Your task to perform on an android device: Play the last video I watched on Youtube Image 0: 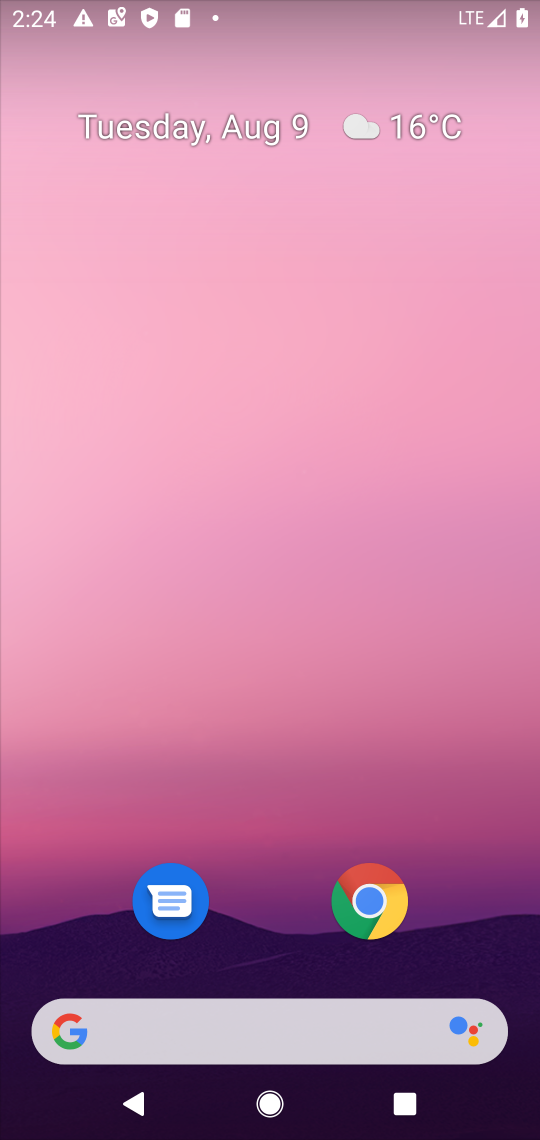
Step 0: drag from (516, 954) to (453, 149)
Your task to perform on an android device: Play the last video I watched on Youtube Image 1: 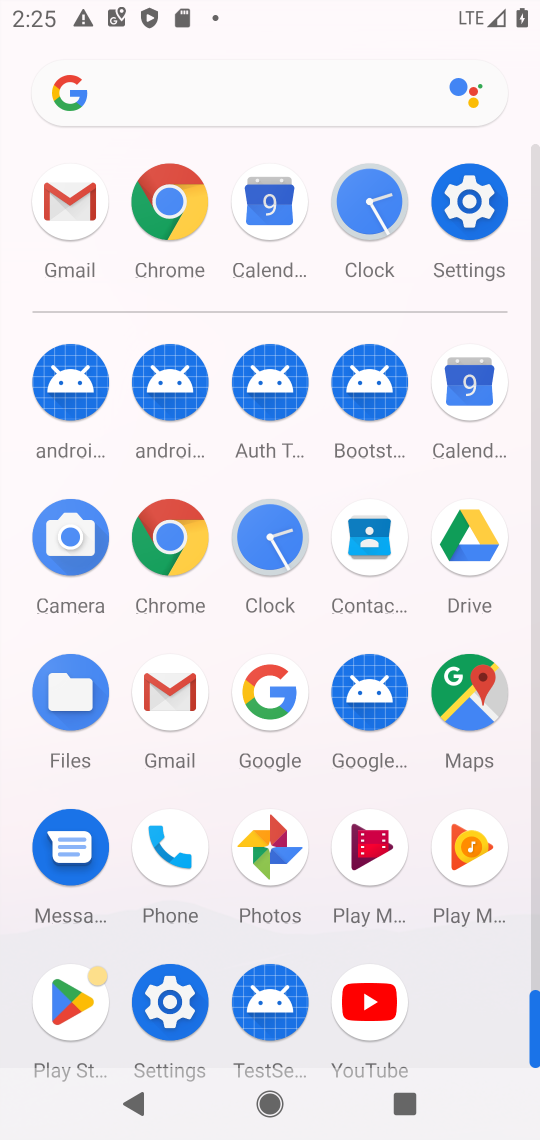
Step 1: click (369, 1001)
Your task to perform on an android device: Play the last video I watched on Youtube Image 2: 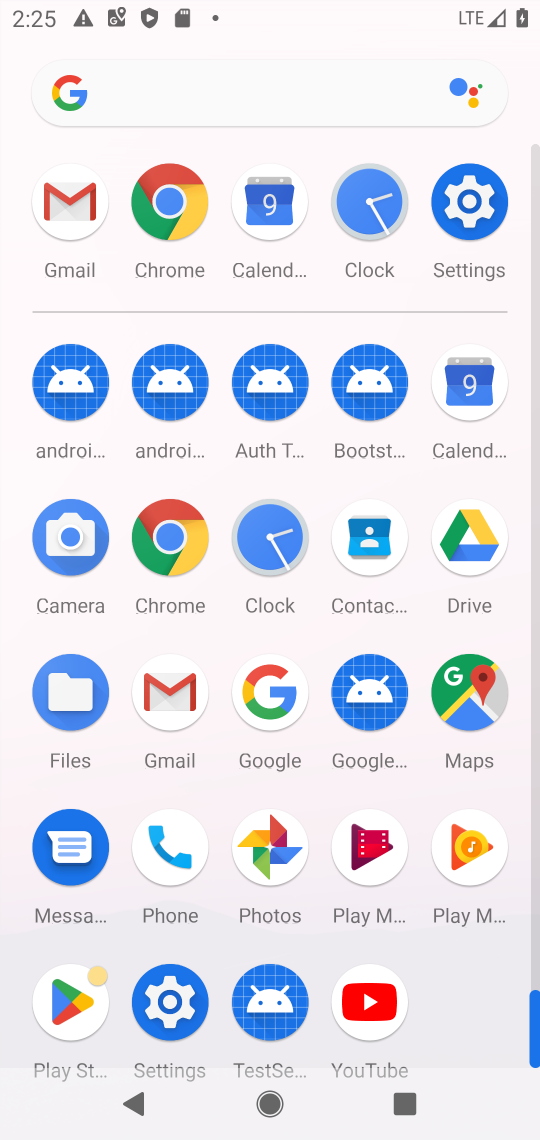
Step 2: click (369, 1001)
Your task to perform on an android device: Play the last video I watched on Youtube Image 3: 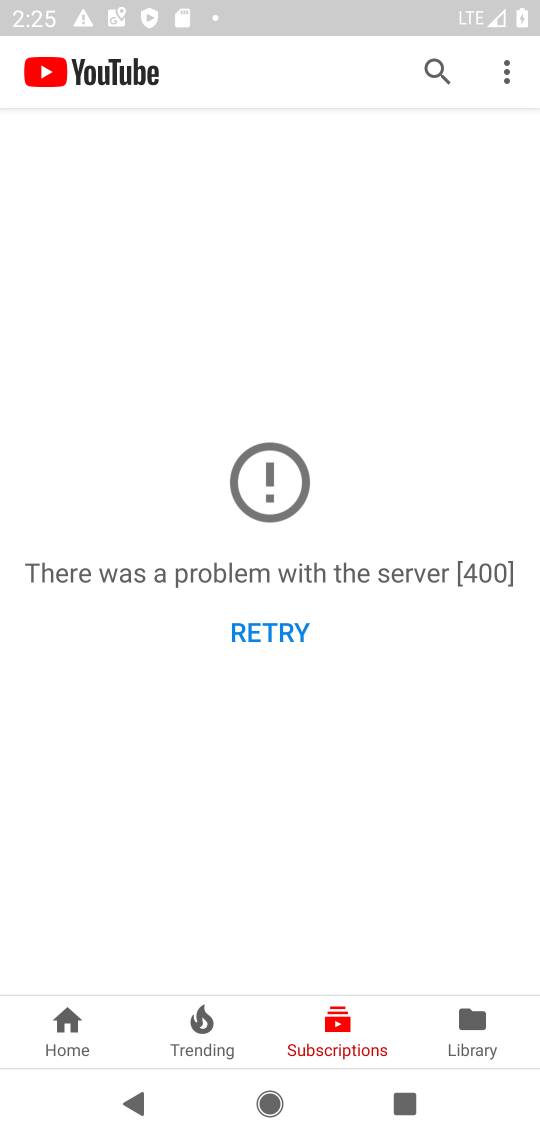
Step 3: click (454, 1022)
Your task to perform on an android device: Play the last video I watched on Youtube Image 4: 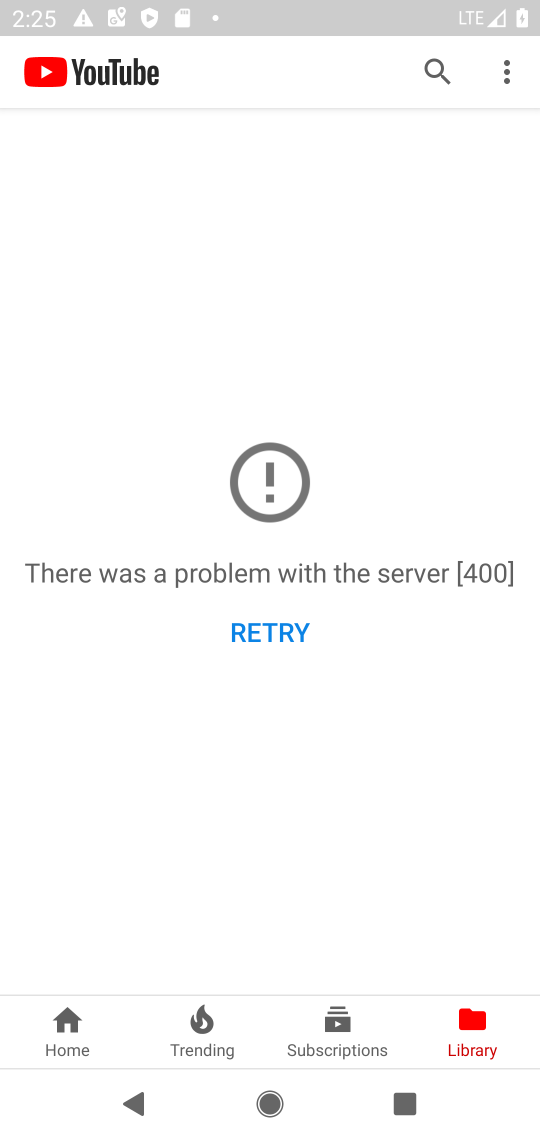
Step 4: click (269, 622)
Your task to perform on an android device: Play the last video I watched on Youtube Image 5: 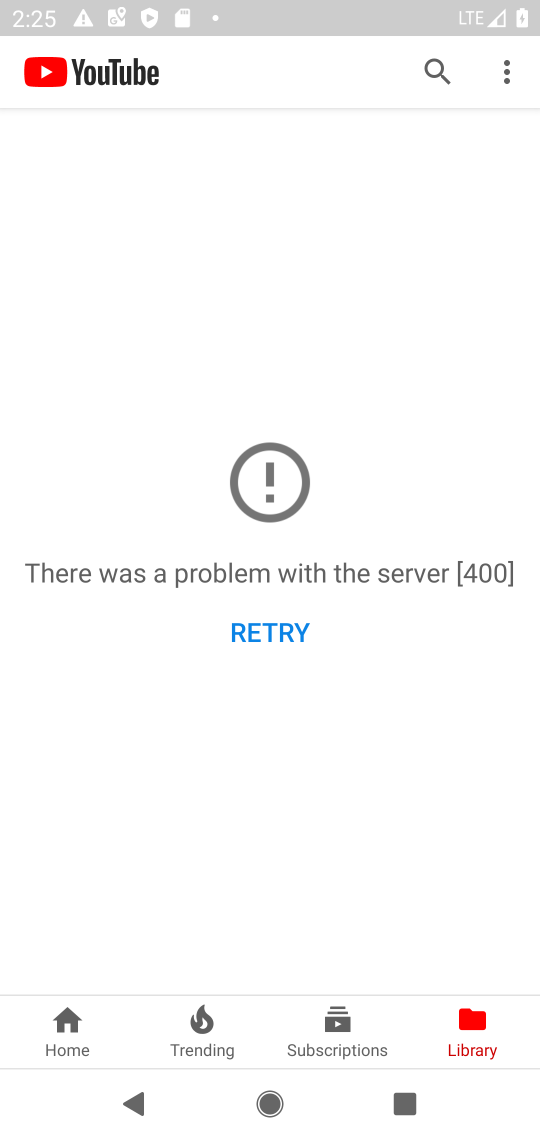
Step 5: task complete